Your task to perform on an android device: What's the weather today? Image 0: 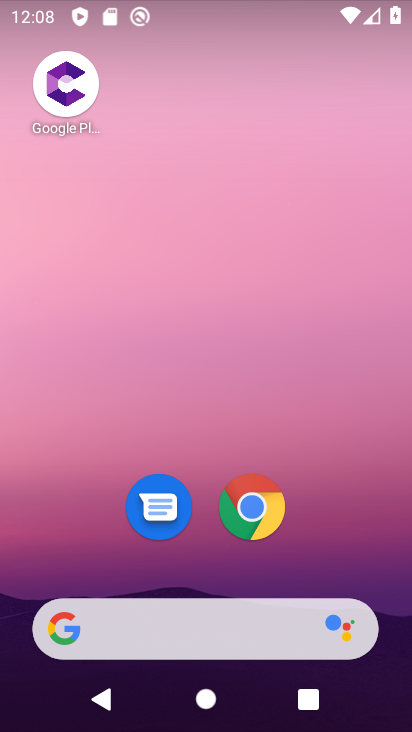
Step 0: drag from (239, 575) to (230, 162)
Your task to perform on an android device: What's the weather today? Image 1: 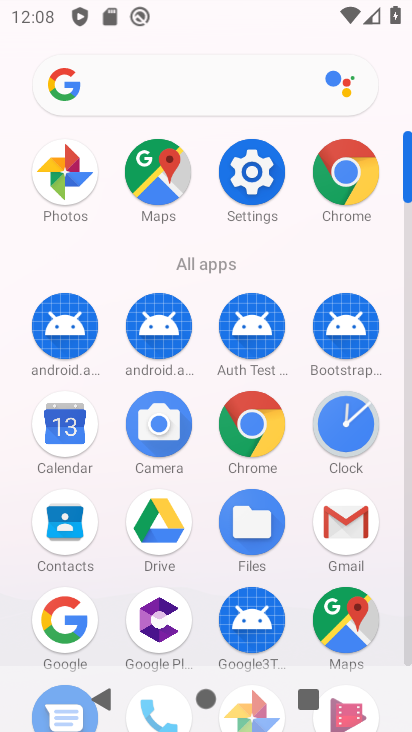
Step 1: click (66, 622)
Your task to perform on an android device: What's the weather today? Image 2: 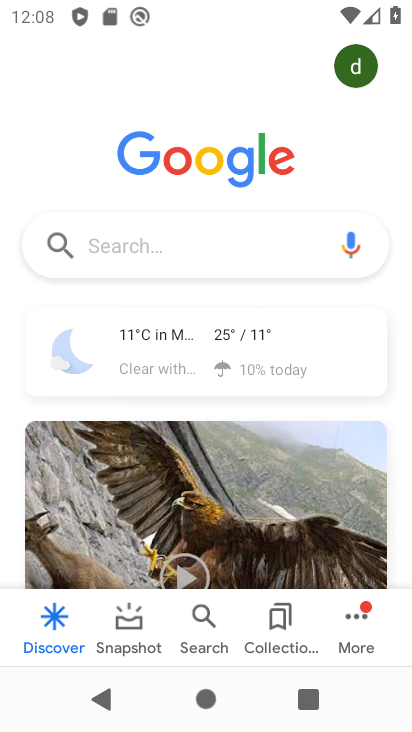
Step 2: click (150, 243)
Your task to perform on an android device: What's the weather today? Image 3: 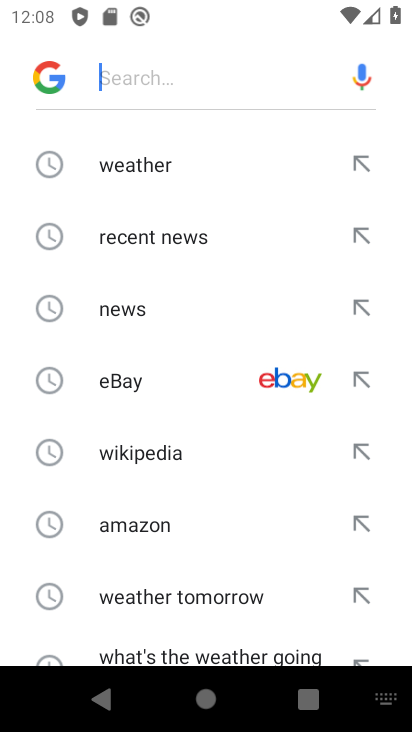
Step 3: click (131, 163)
Your task to perform on an android device: What's the weather today? Image 4: 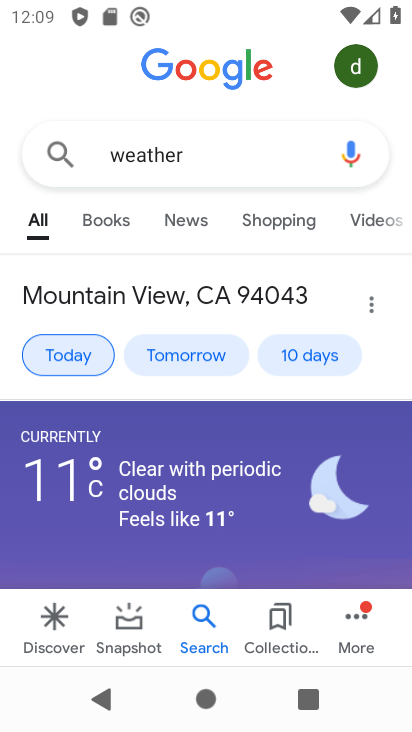
Step 4: drag from (187, 518) to (213, 237)
Your task to perform on an android device: What's the weather today? Image 5: 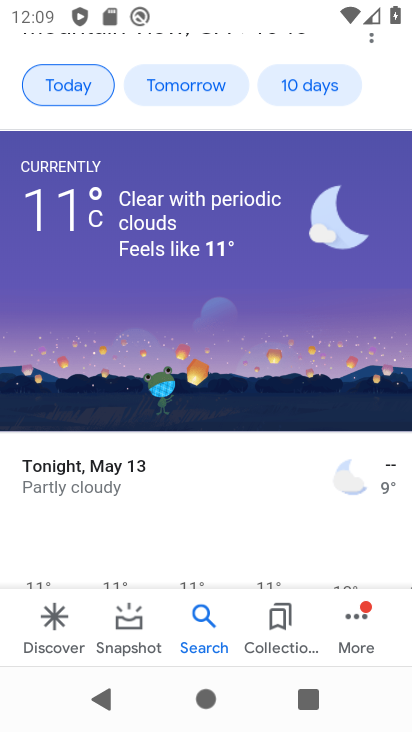
Step 5: drag from (170, 553) to (178, 296)
Your task to perform on an android device: What's the weather today? Image 6: 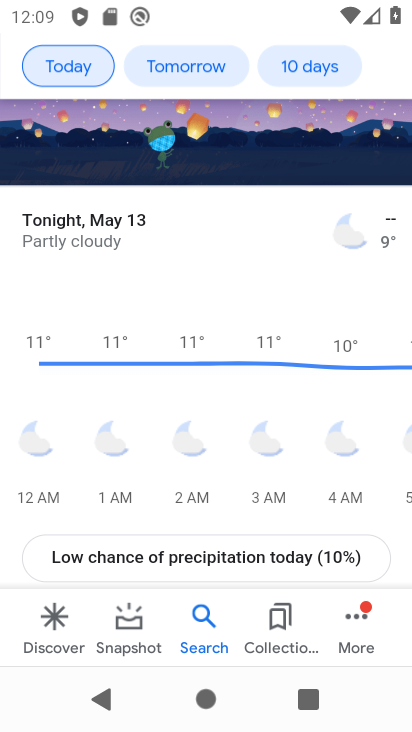
Step 6: click (158, 565)
Your task to perform on an android device: What's the weather today? Image 7: 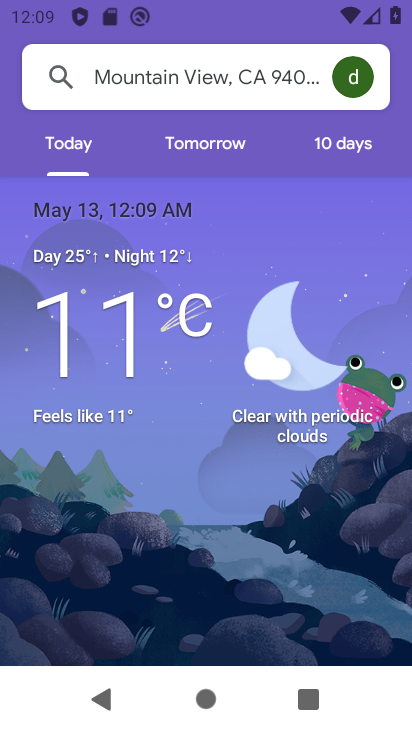
Step 7: task complete